Your task to perform on an android device: Set the phone to "Do not disturb". Image 0: 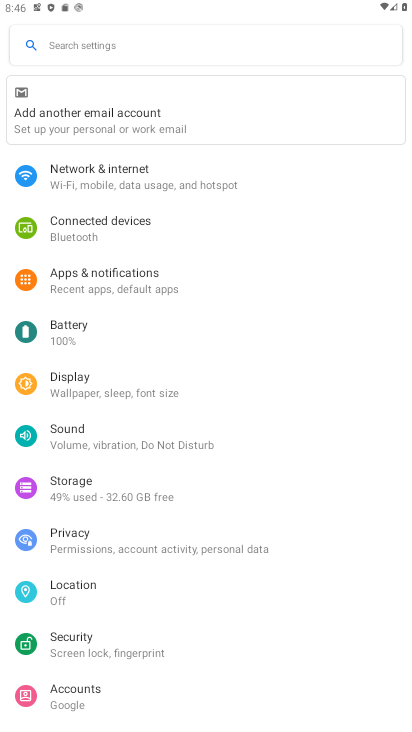
Step 0: press home button
Your task to perform on an android device: Set the phone to "Do not disturb". Image 1: 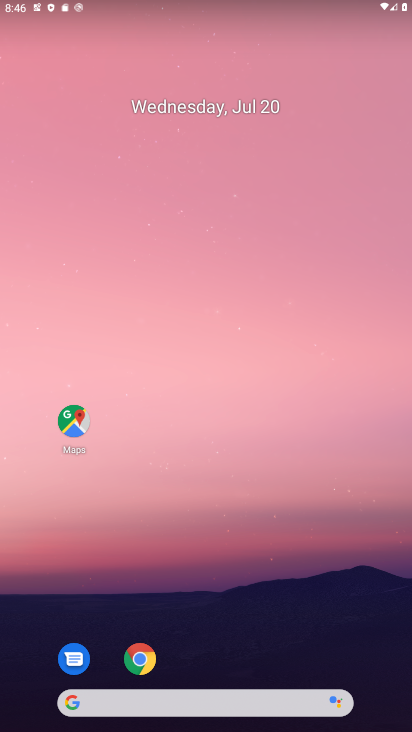
Step 1: drag from (258, 601) to (246, 86)
Your task to perform on an android device: Set the phone to "Do not disturb". Image 2: 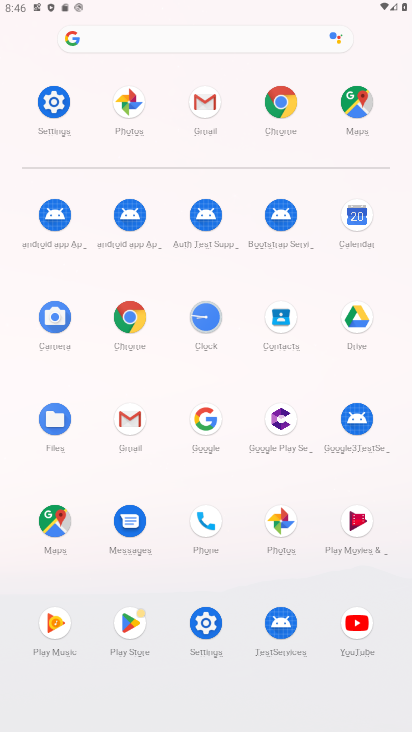
Step 2: drag from (189, 33) to (104, 442)
Your task to perform on an android device: Set the phone to "Do not disturb". Image 3: 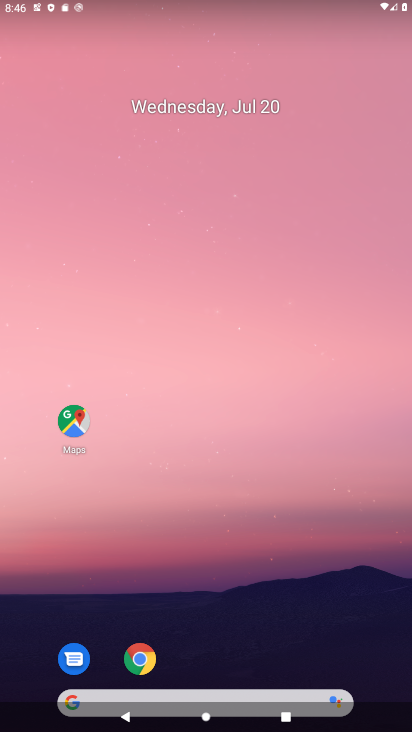
Step 3: drag from (121, 9) to (82, 299)
Your task to perform on an android device: Set the phone to "Do not disturb". Image 4: 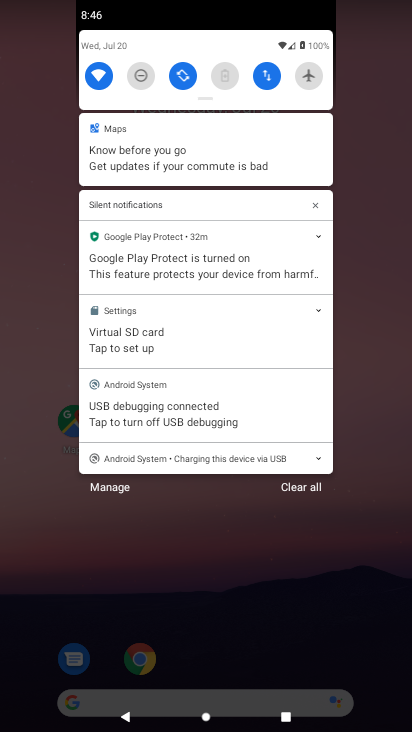
Step 4: click (134, 71)
Your task to perform on an android device: Set the phone to "Do not disturb". Image 5: 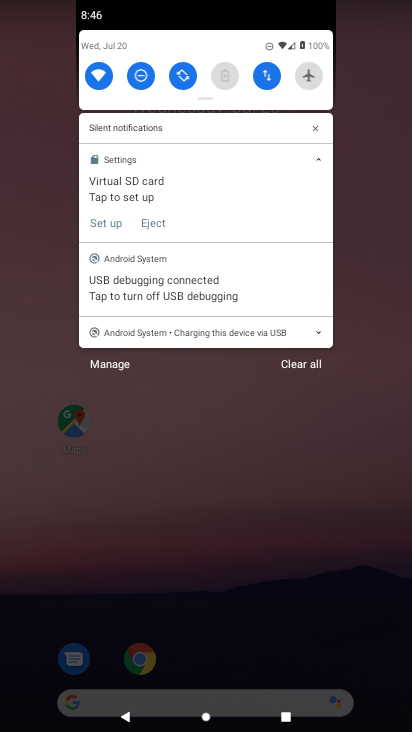
Step 5: task complete